Your task to perform on an android device: change notification settings in the gmail app Image 0: 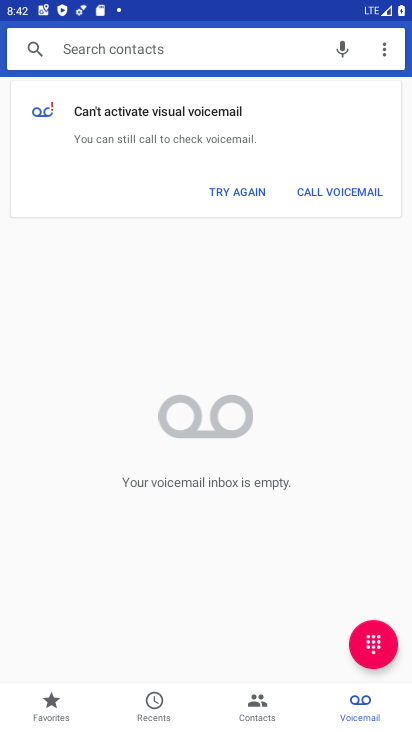
Step 0: press back button
Your task to perform on an android device: change notification settings in the gmail app Image 1: 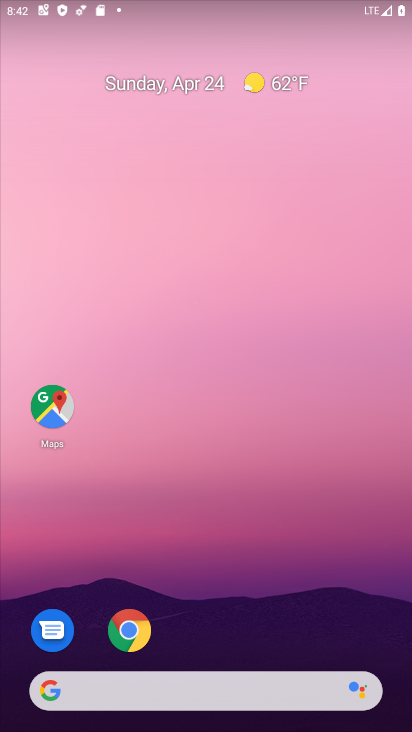
Step 1: drag from (372, 620) to (346, 7)
Your task to perform on an android device: change notification settings in the gmail app Image 2: 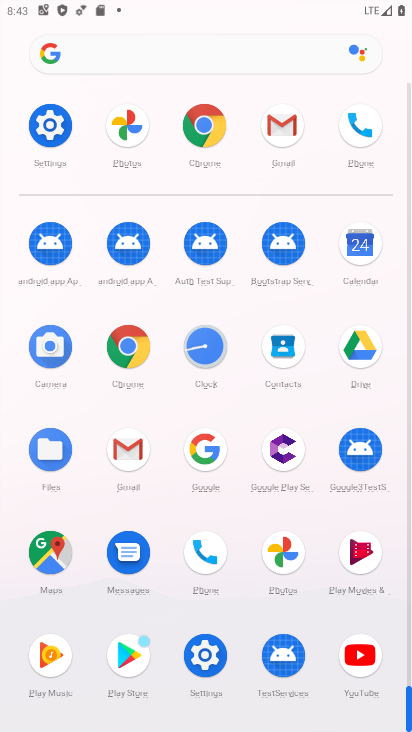
Step 2: click (129, 447)
Your task to perform on an android device: change notification settings in the gmail app Image 3: 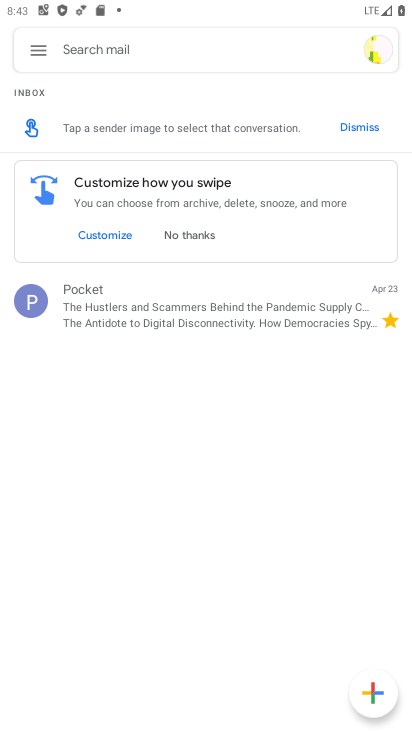
Step 3: click (41, 50)
Your task to perform on an android device: change notification settings in the gmail app Image 4: 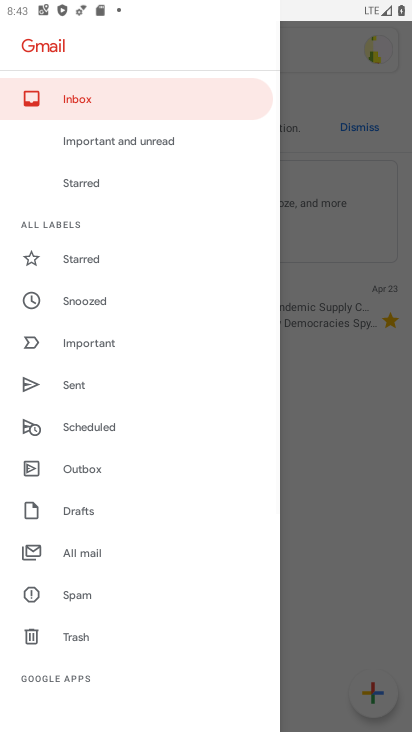
Step 4: drag from (187, 537) to (198, 107)
Your task to perform on an android device: change notification settings in the gmail app Image 5: 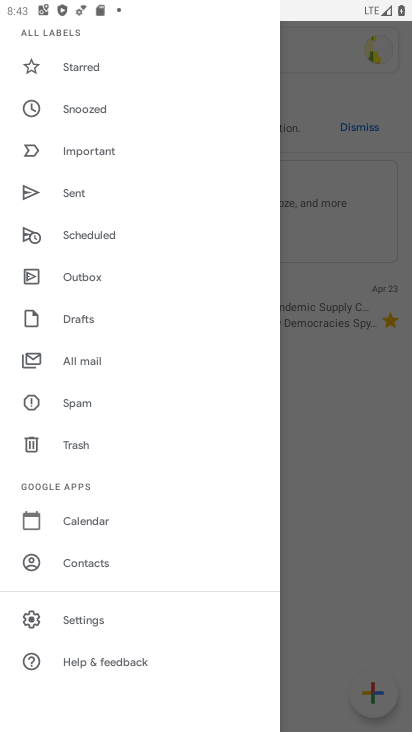
Step 5: drag from (157, 456) to (172, 226)
Your task to perform on an android device: change notification settings in the gmail app Image 6: 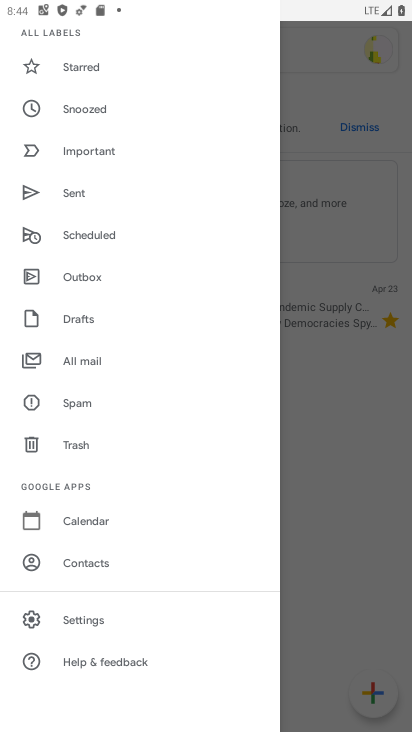
Step 6: click (77, 612)
Your task to perform on an android device: change notification settings in the gmail app Image 7: 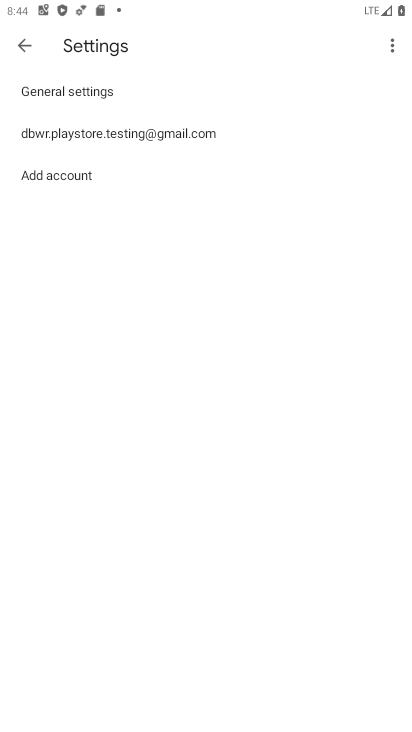
Step 7: click (82, 128)
Your task to perform on an android device: change notification settings in the gmail app Image 8: 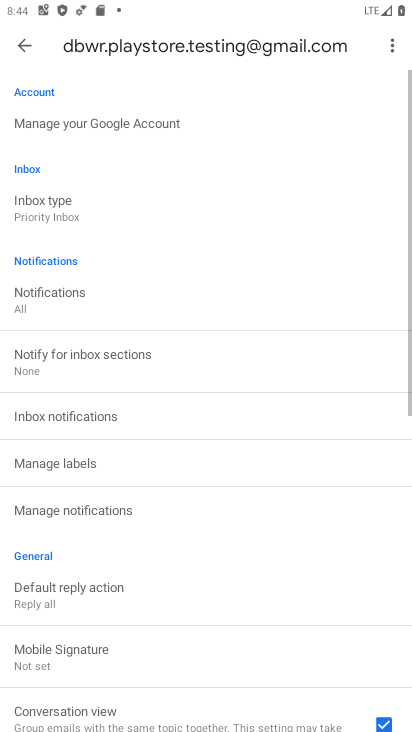
Step 8: click (92, 510)
Your task to perform on an android device: change notification settings in the gmail app Image 9: 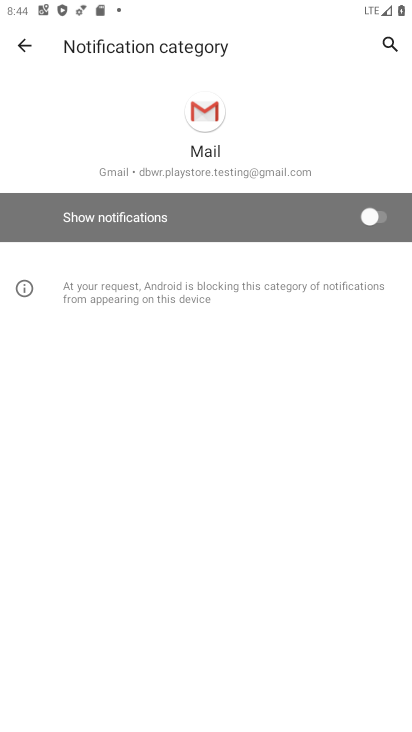
Step 9: click (358, 212)
Your task to perform on an android device: change notification settings in the gmail app Image 10: 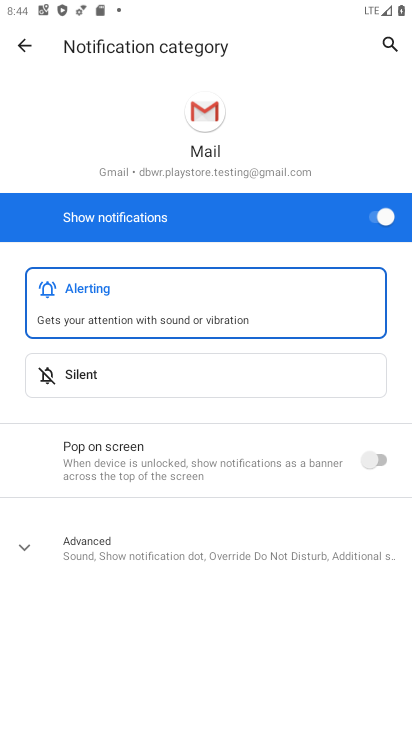
Step 10: task complete